Your task to perform on an android device: add a contact in the contacts app Image 0: 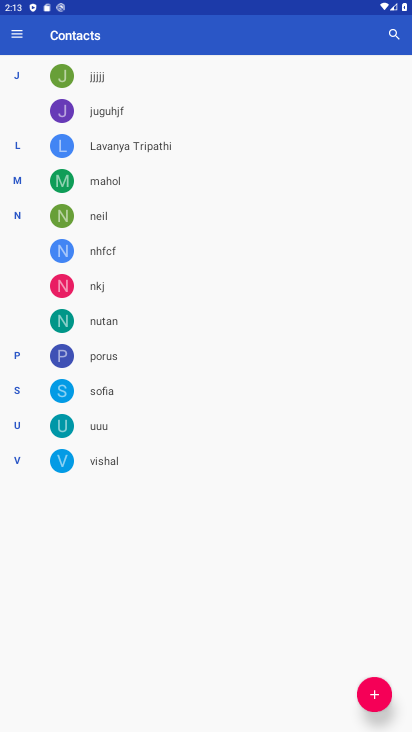
Step 0: click (367, 707)
Your task to perform on an android device: add a contact in the contacts app Image 1: 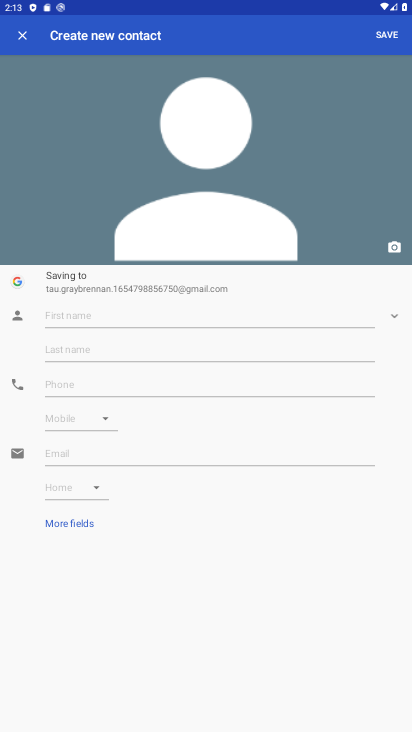
Step 1: click (67, 315)
Your task to perform on an android device: add a contact in the contacts app Image 2: 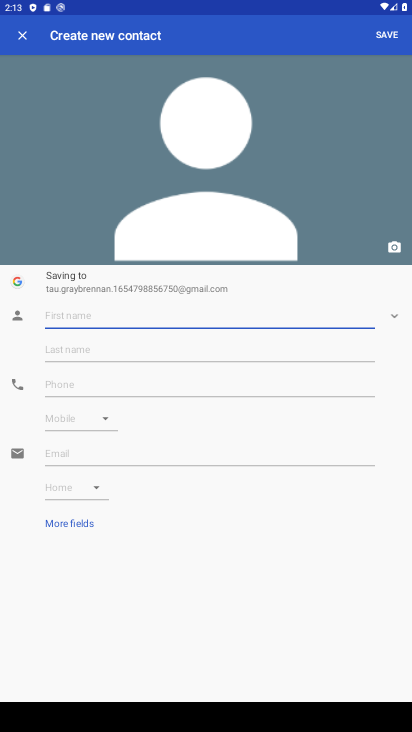
Step 2: type "cbnbnb"
Your task to perform on an android device: add a contact in the contacts app Image 3: 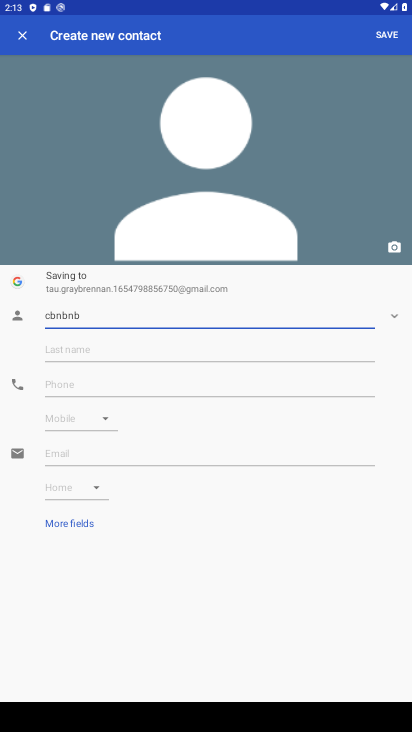
Step 3: click (70, 382)
Your task to perform on an android device: add a contact in the contacts app Image 4: 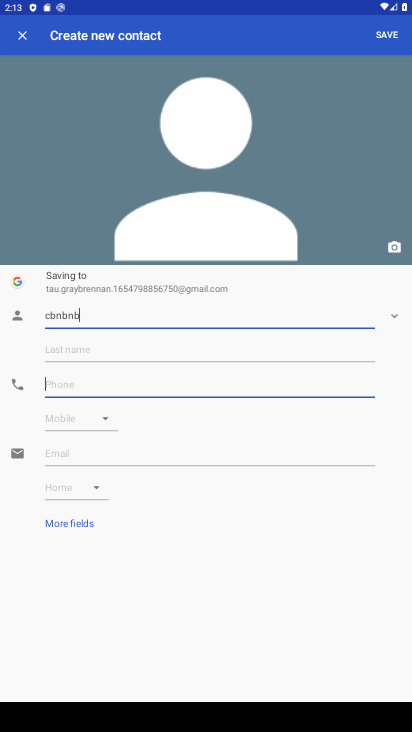
Step 4: click (70, 382)
Your task to perform on an android device: add a contact in the contacts app Image 5: 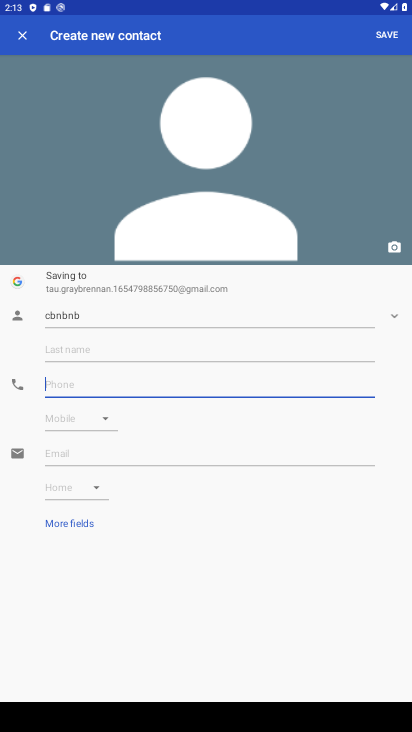
Step 5: type "89867879899"
Your task to perform on an android device: add a contact in the contacts app Image 6: 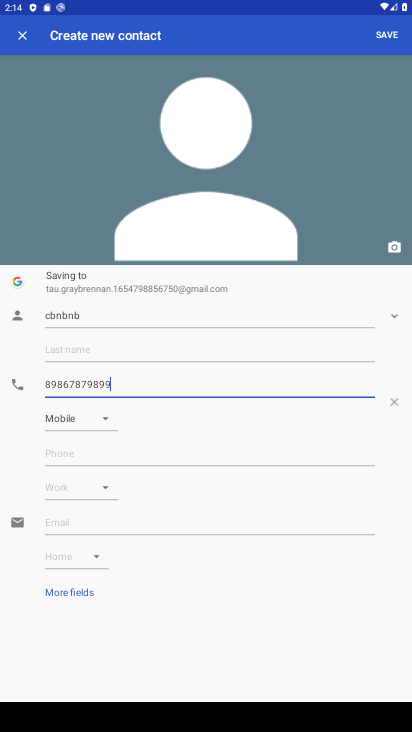
Step 6: click (385, 35)
Your task to perform on an android device: add a contact in the contacts app Image 7: 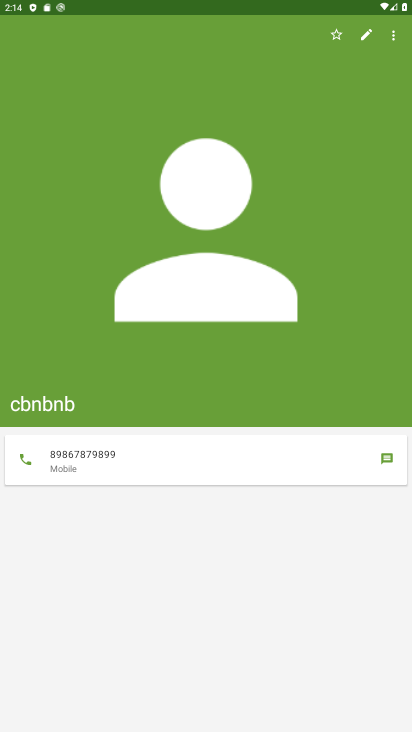
Step 7: task complete